Your task to perform on an android device: What is the news today? Image 0: 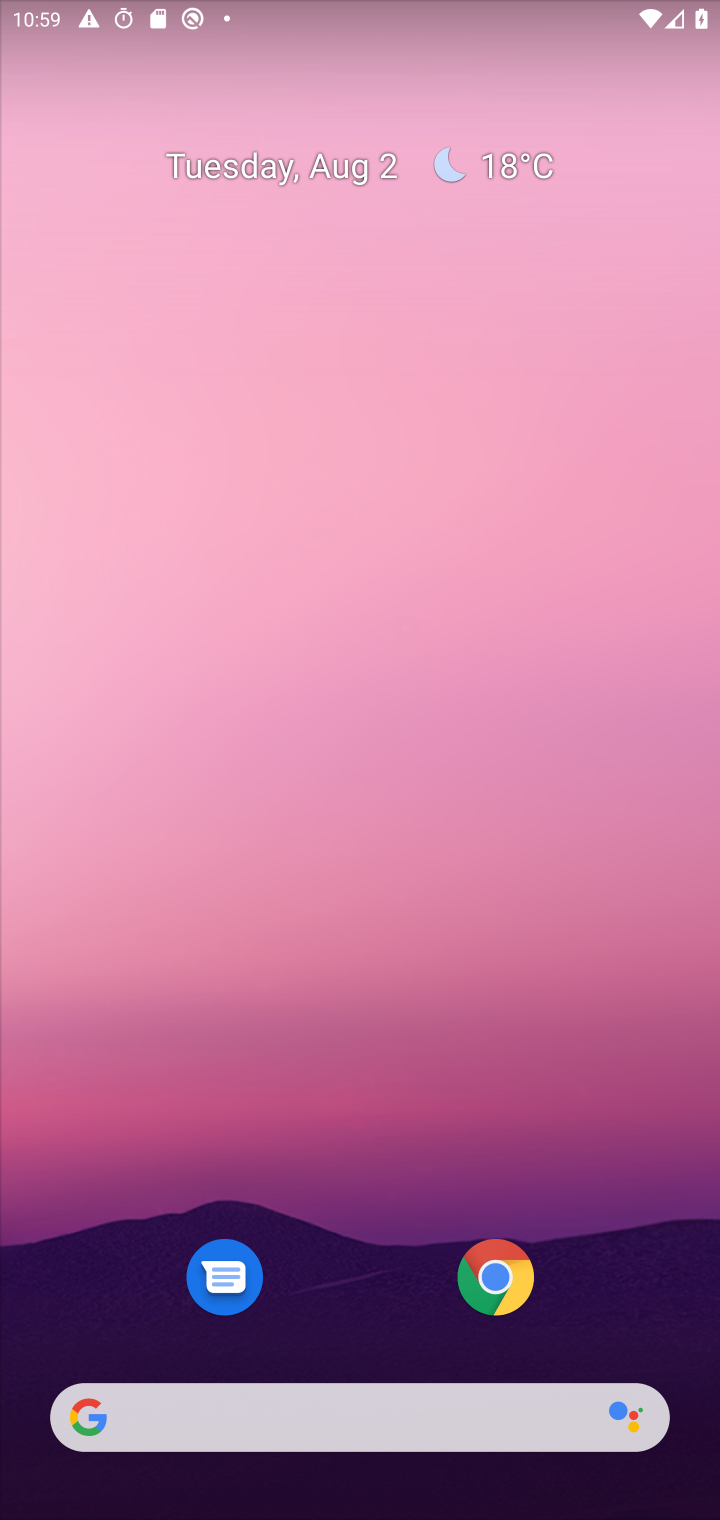
Step 0: press home button
Your task to perform on an android device: What is the news today? Image 1: 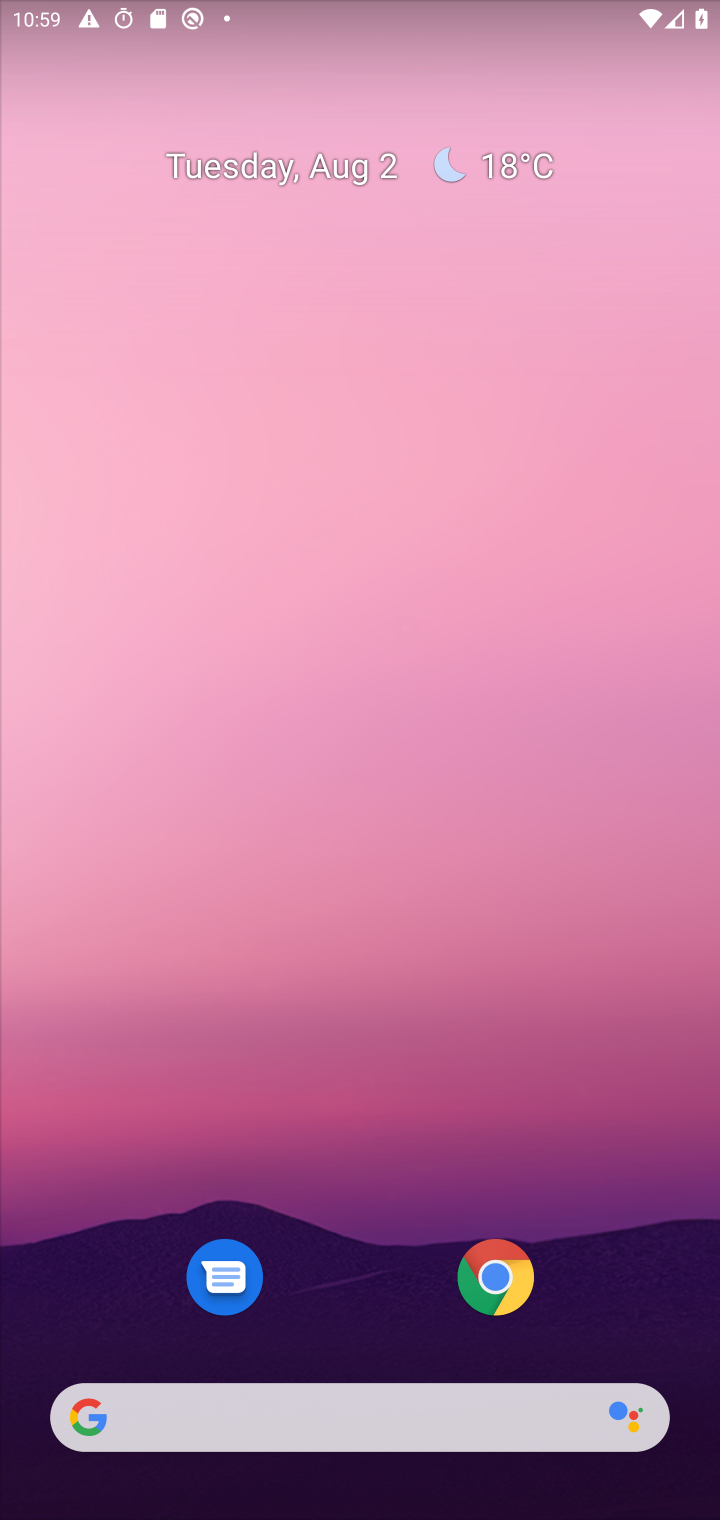
Step 1: click (88, 1418)
Your task to perform on an android device: What is the news today? Image 2: 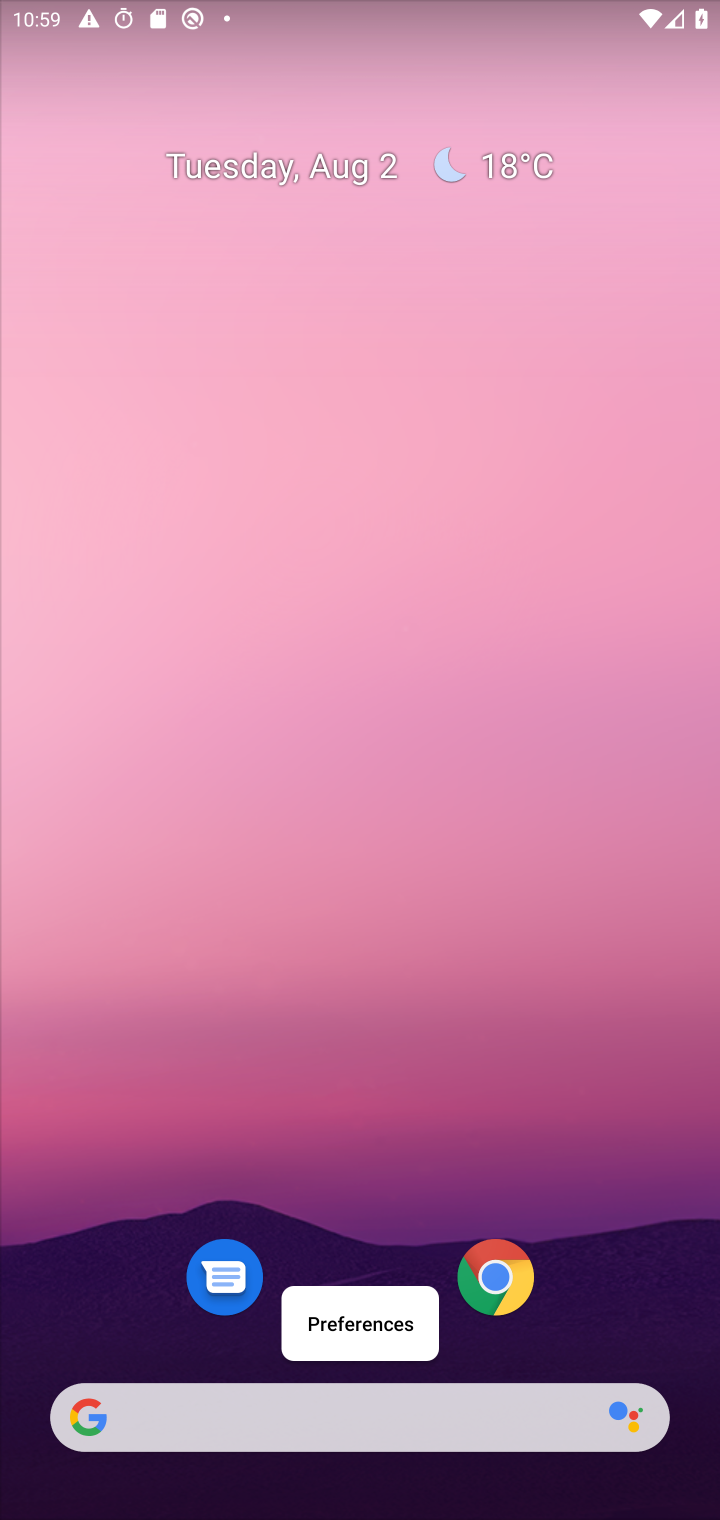
Step 2: click (77, 1421)
Your task to perform on an android device: What is the news today? Image 3: 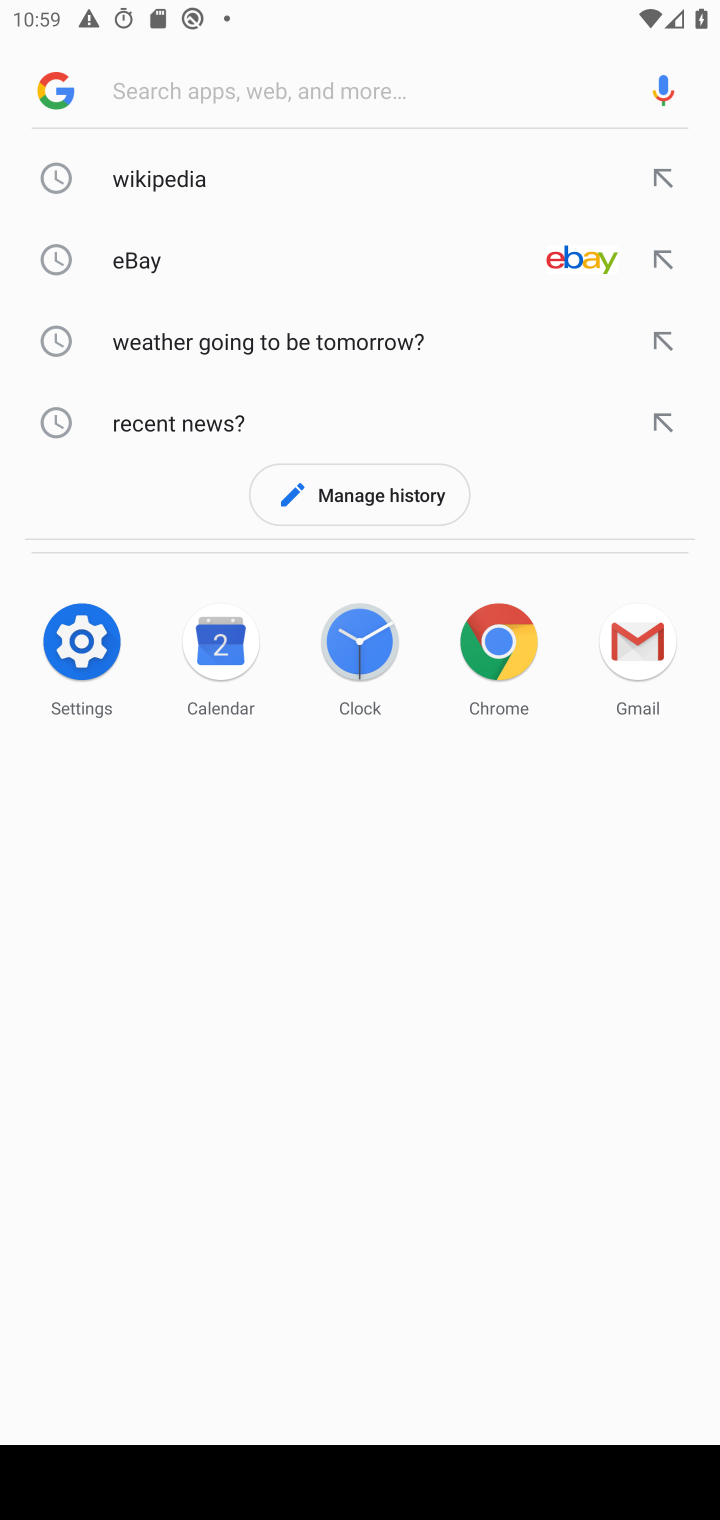
Step 3: type " news today?"
Your task to perform on an android device: What is the news today? Image 4: 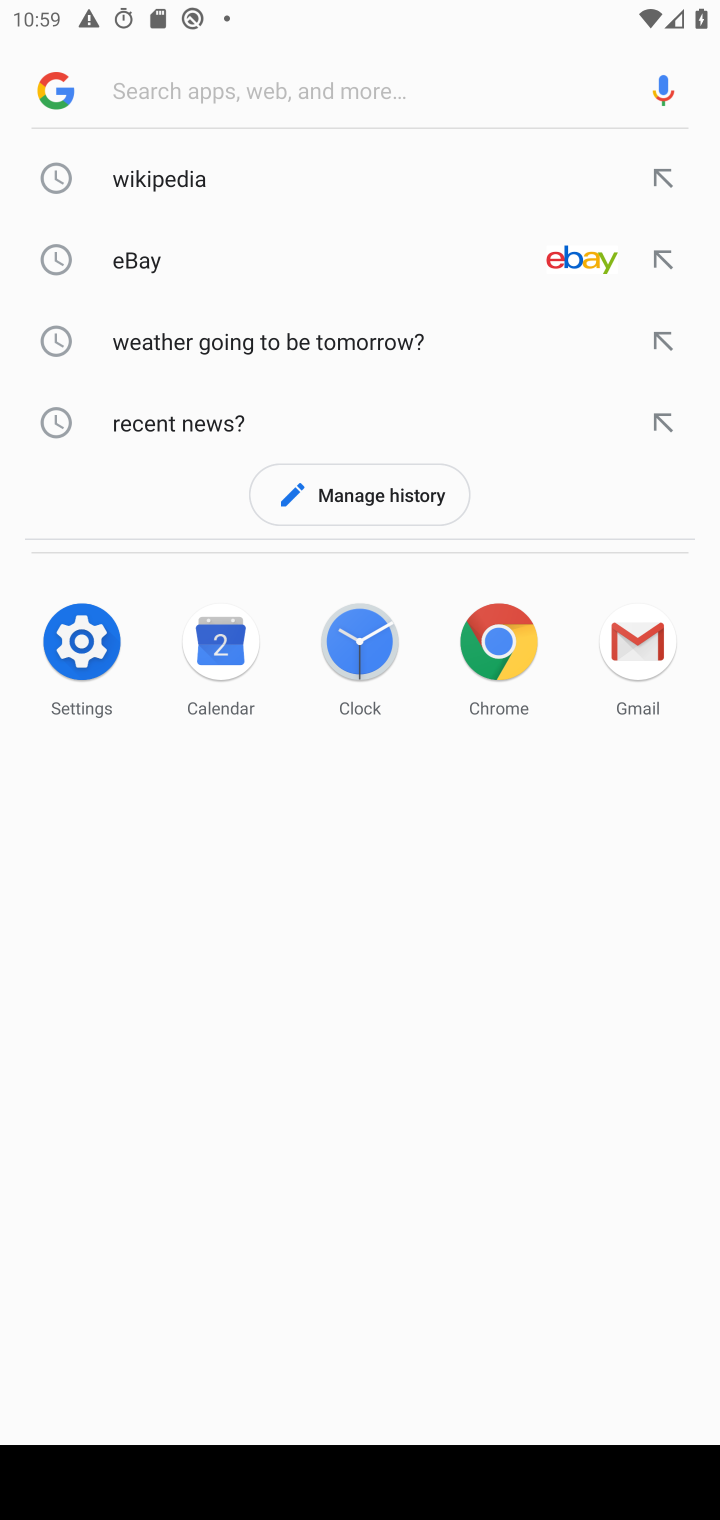
Step 4: click (186, 87)
Your task to perform on an android device: What is the news today? Image 5: 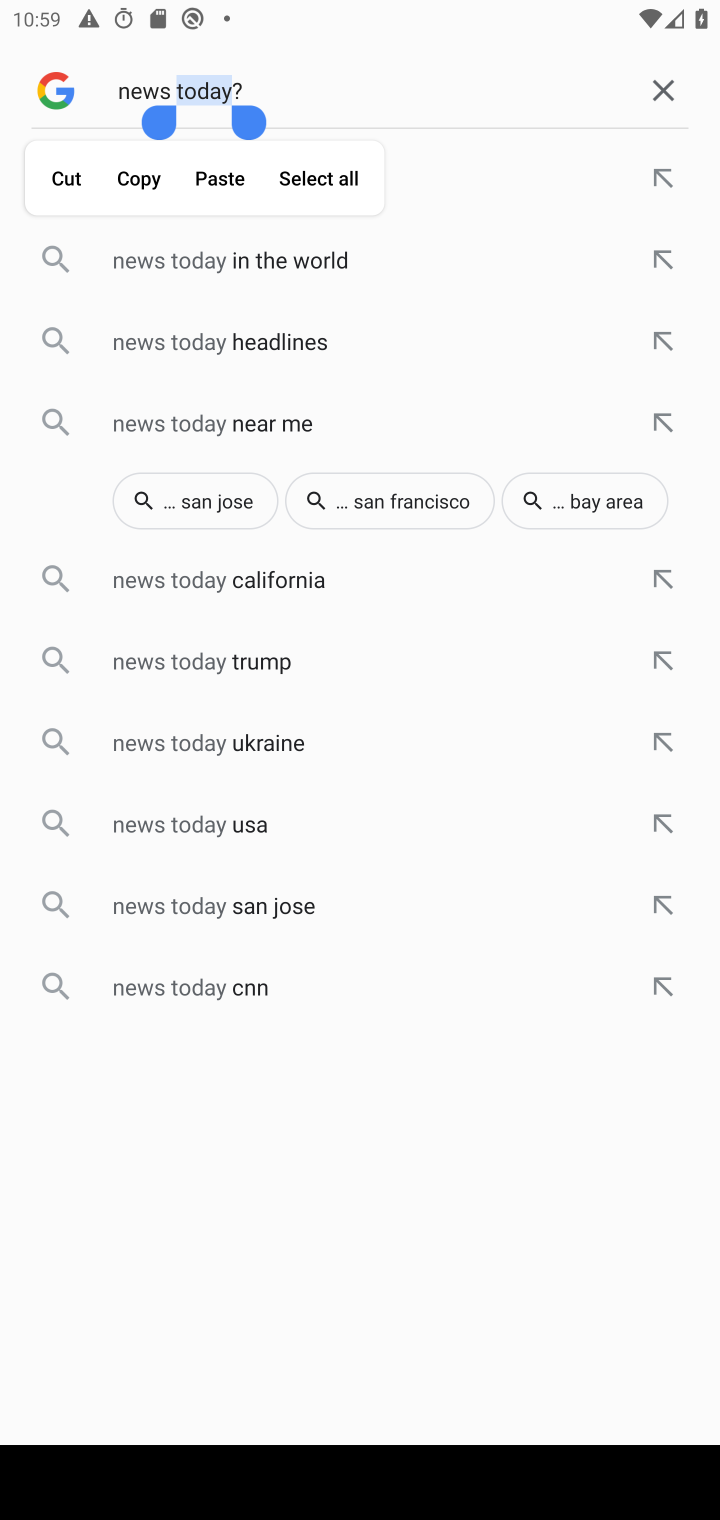
Step 5: press enter
Your task to perform on an android device: What is the news today? Image 6: 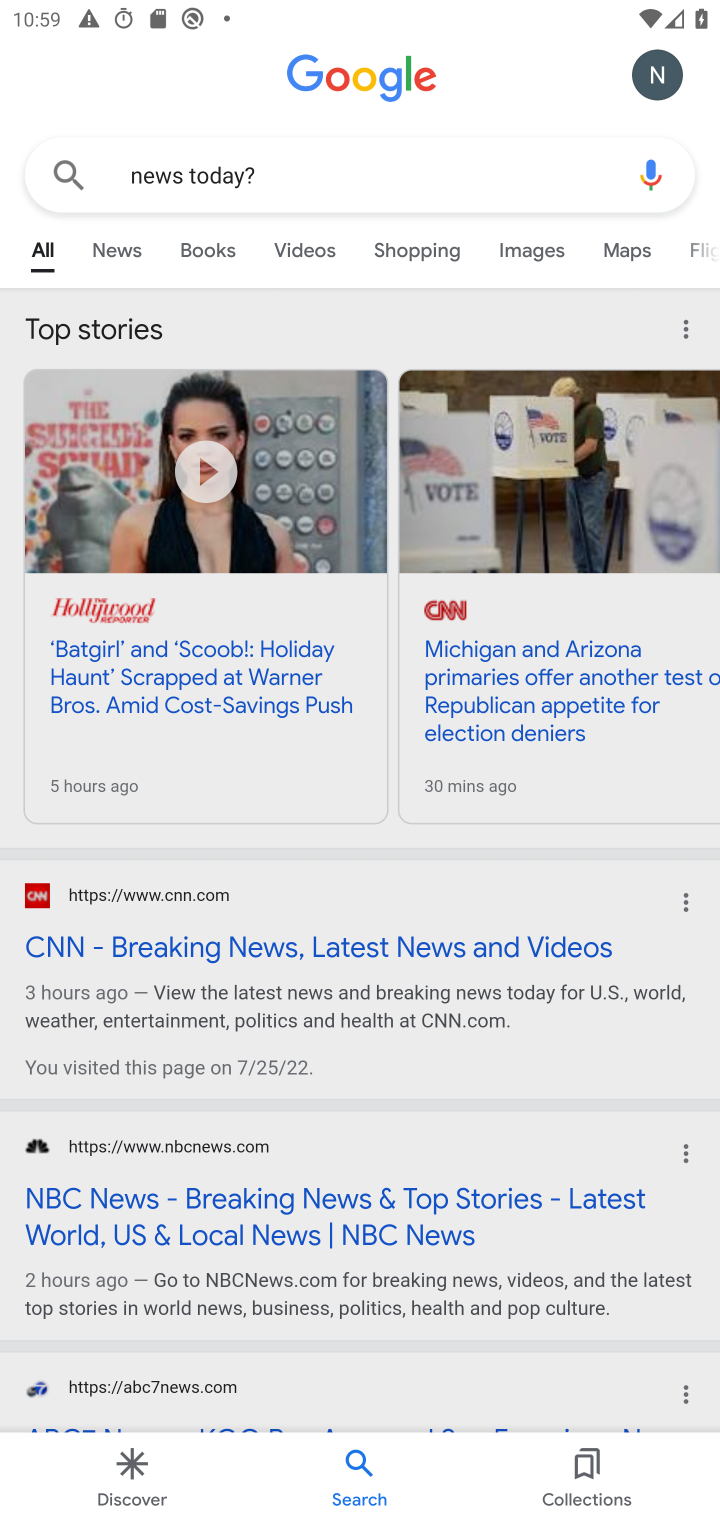
Step 6: task complete